Your task to perform on an android device: Show me popular games on the Play Store Image 0: 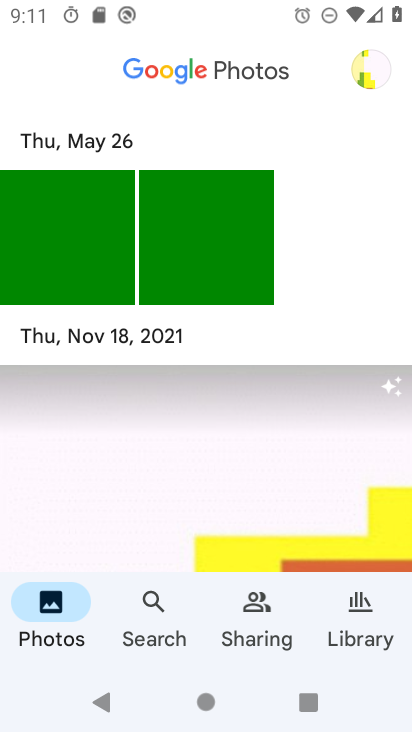
Step 0: press home button
Your task to perform on an android device: Show me popular games on the Play Store Image 1: 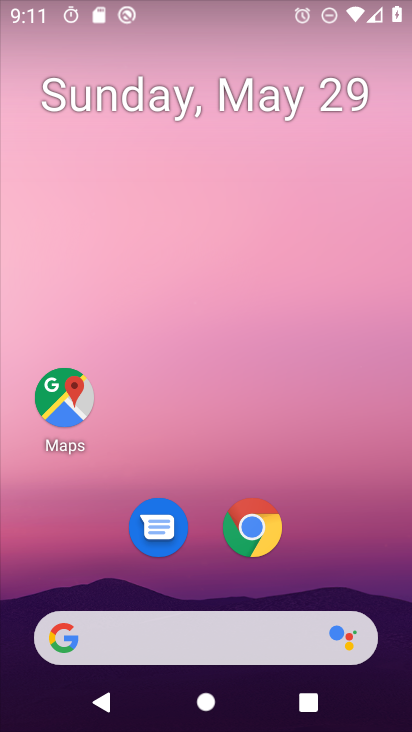
Step 1: drag from (404, 624) to (262, 38)
Your task to perform on an android device: Show me popular games on the Play Store Image 2: 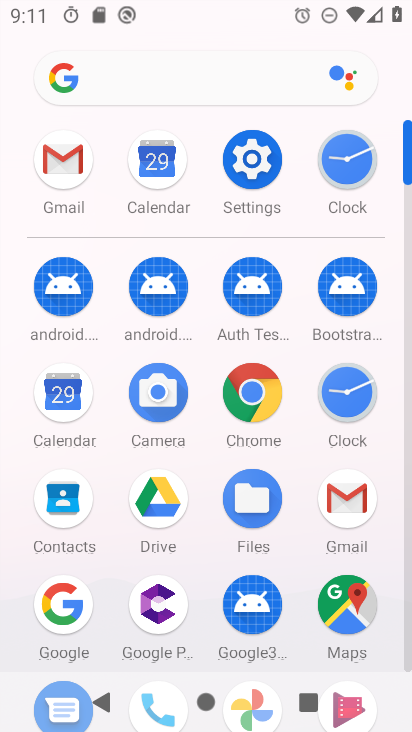
Step 2: drag from (226, 658) to (237, 138)
Your task to perform on an android device: Show me popular games on the Play Store Image 3: 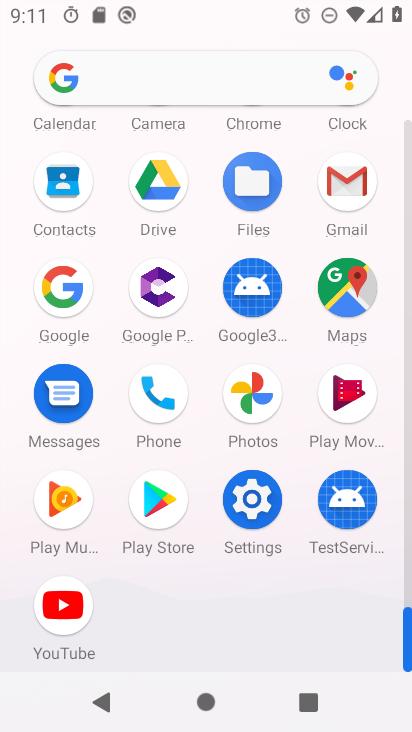
Step 3: click (158, 521)
Your task to perform on an android device: Show me popular games on the Play Store Image 4: 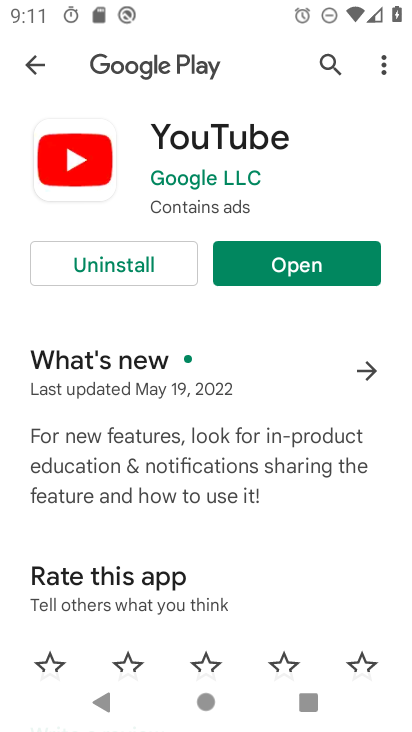
Step 4: press back button
Your task to perform on an android device: Show me popular games on the Play Store Image 5: 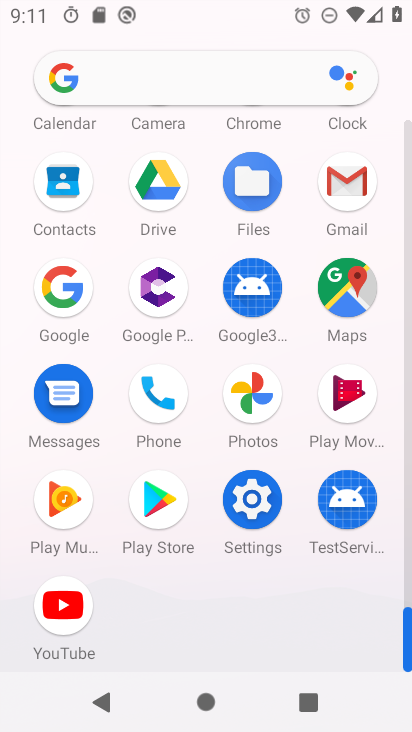
Step 5: click (168, 475)
Your task to perform on an android device: Show me popular games on the Play Store Image 6: 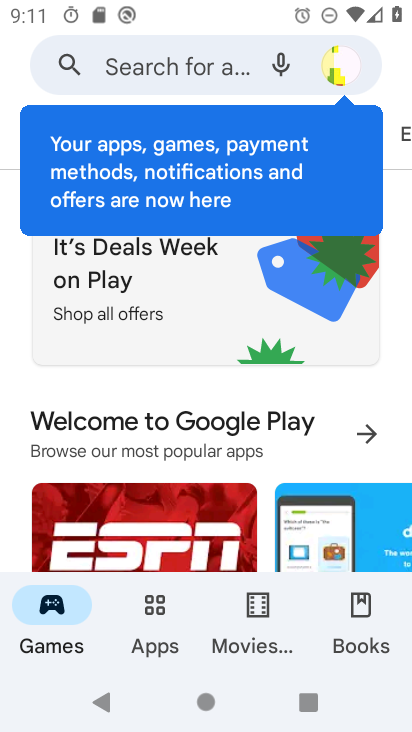
Step 6: drag from (198, 502) to (177, 138)
Your task to perform on an android device: Show me popular games on the Play Store Image 7: 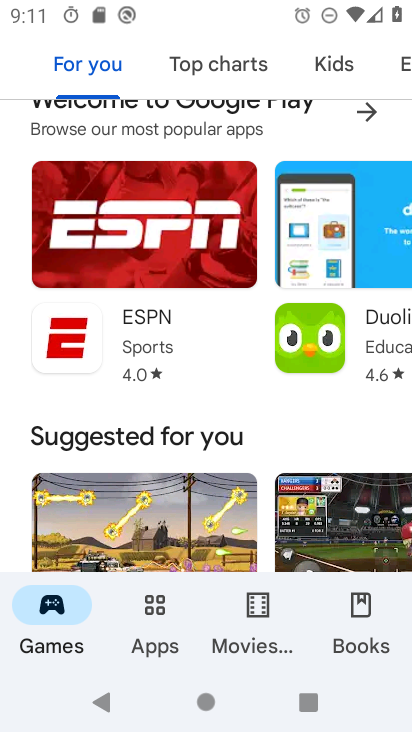
Step 7: drag from (227, 476) to (195, 81)
Your task to perform on an android device: Show me popular games on the Play Store Image 8: 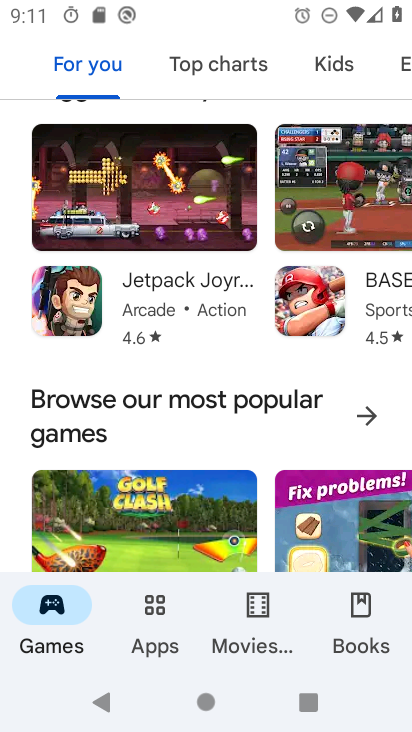
Step 8: click (365, 416)
Your task to perform on an android device: Show me popular games on the Play Store Image 9: 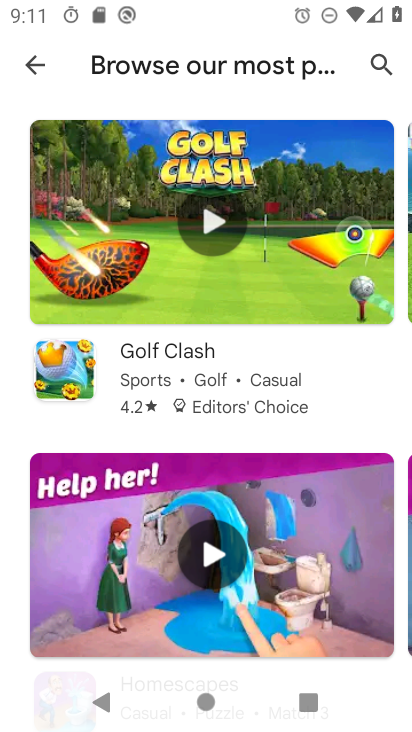
Step 9: task complete